Your task to perform on an android device: turn on javascript in the chrome app Image 0: 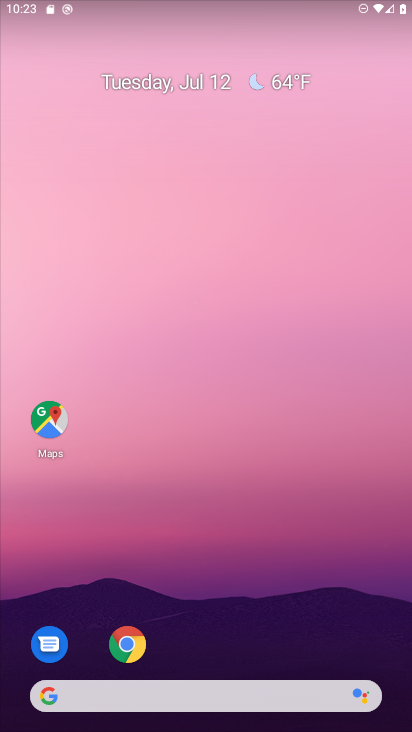
Step 0: click (141, 647)
Your task to perform on an android device: turn on javascript in the chrome app Image 1: 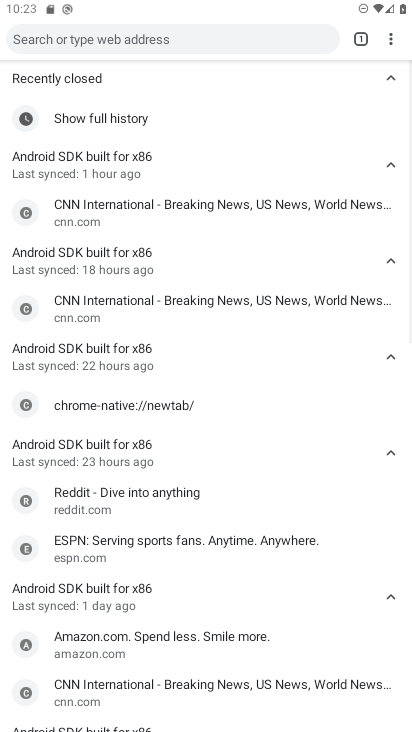
Step 1: click (389, 45)
Your task to perform on an android device: turn on javascript in the chrome app Image 2: 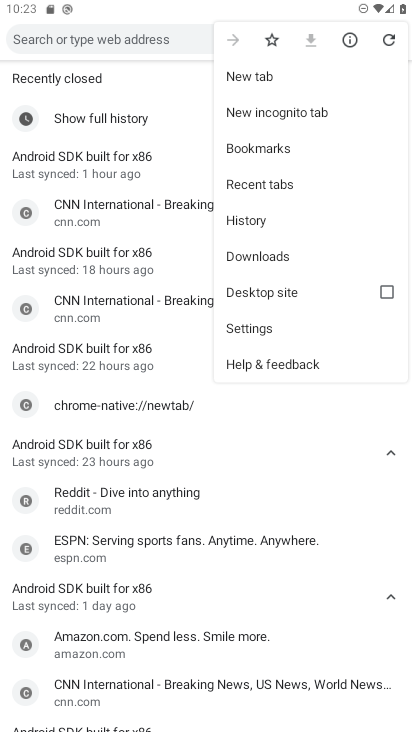
Step 2: click (269, 321)
Your task to perform on an android device: turn on javascript in the chrome app Image 3: 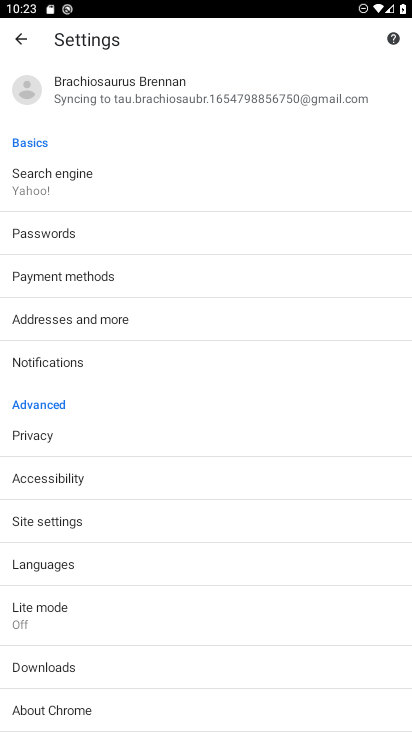
Step 3: click (111, 511)
Your task to perform on an android device: turn on javascript in the chrome app Image 4: 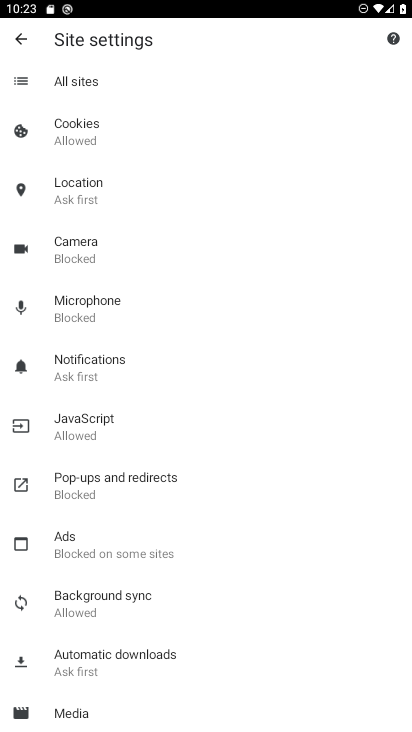
Step 4: click (161, 419)
Your task to perform on an android device: turn on javascript in the chrome app Image 5: 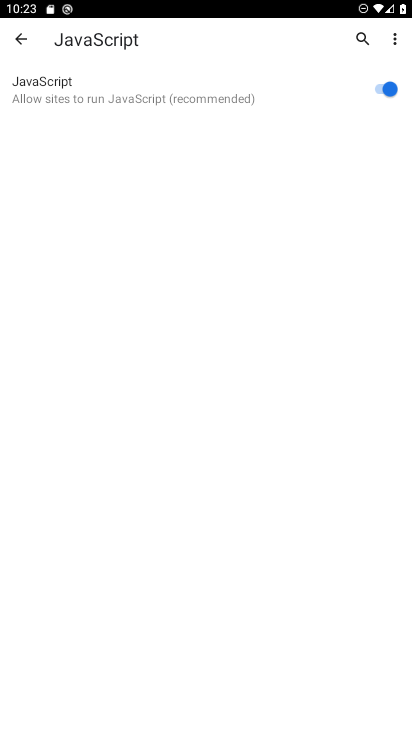
Step 5: task complete